Your task to perform on an android device: move an email to a new category in the gmail app Image 0: 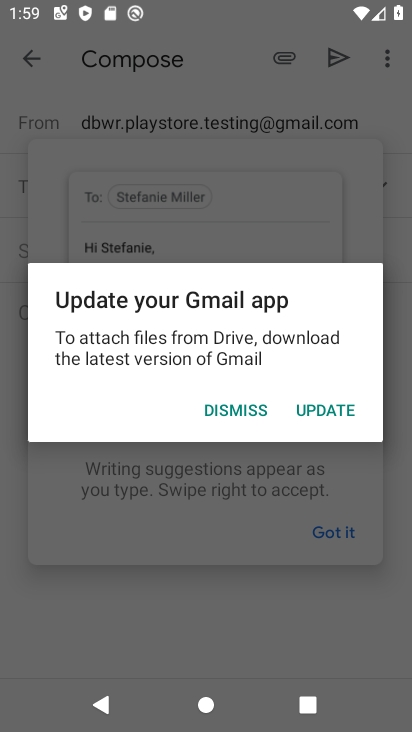
Step 0: press home button
Your task to perform on an android device: move an email to a new category in the gmail app Image 1: 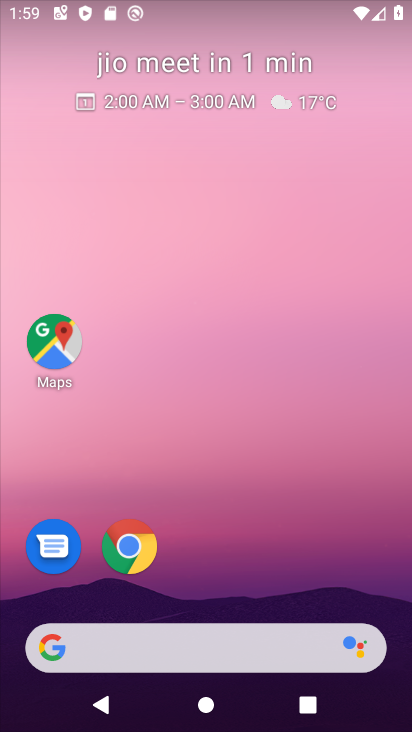
Step 1: drag from (353, 599) to (307, 235)
Your task to perform on an android device: move an email to a new category in the gmail app Image 2: 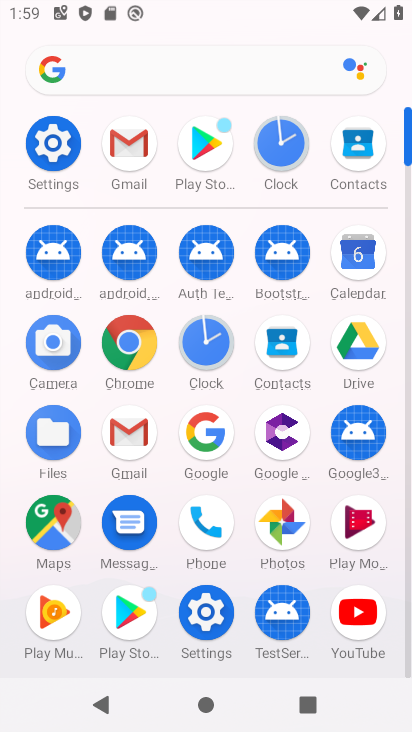
Step 2: click (135, 433)
Your task to perform on an android device: move an email to a new category in the gmail app Image 3: 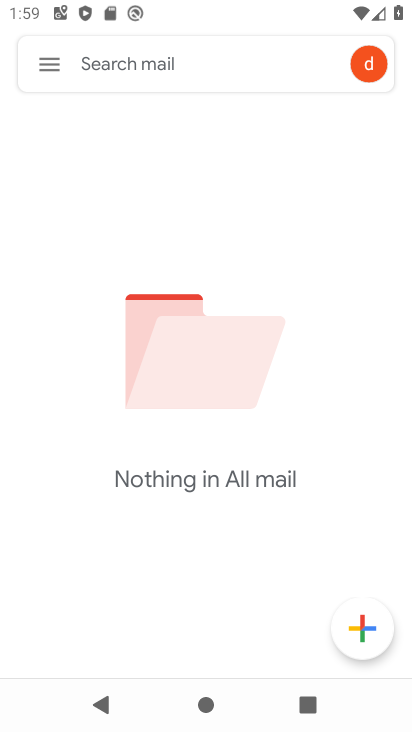
Step 3: task complete